Your task to perform on an android device: Open the web browser Image 0: 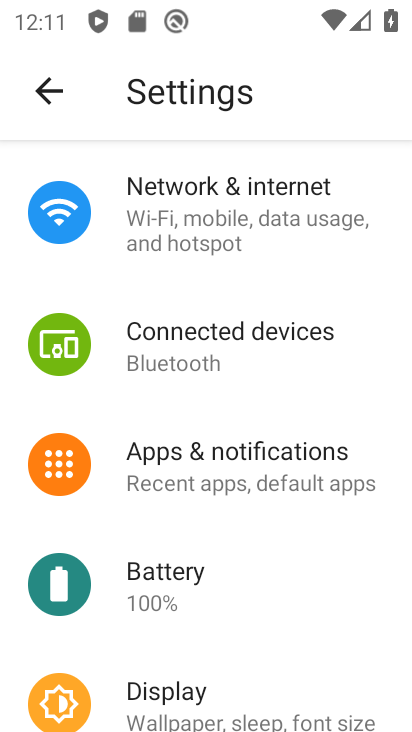
Step 0: press home button
Your task to perform on an android device: Open the web browser Image 1: 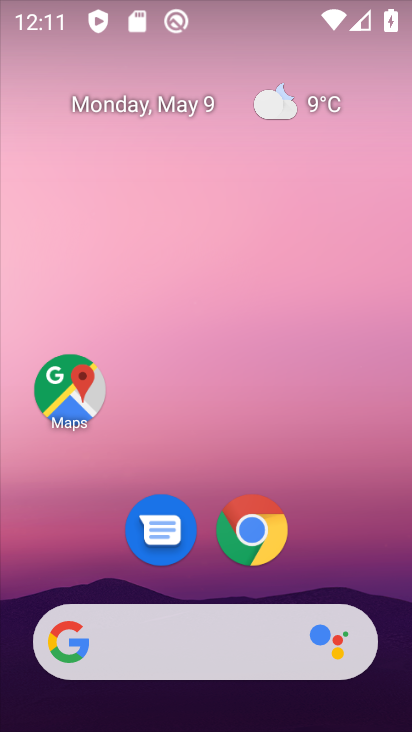
Step 1: click (345, 242)
Your task to perform on an android device: Open the web browser Image 2: 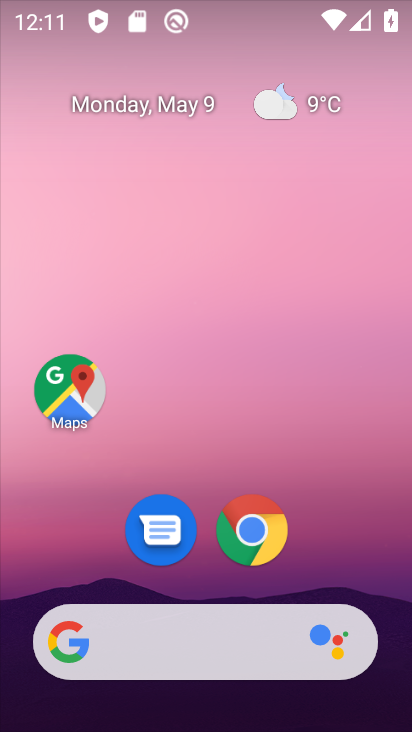
Step 2: drag from (314, 500) to (338, 263)
Your task to perform on an android device: Open the web browser Image 3: 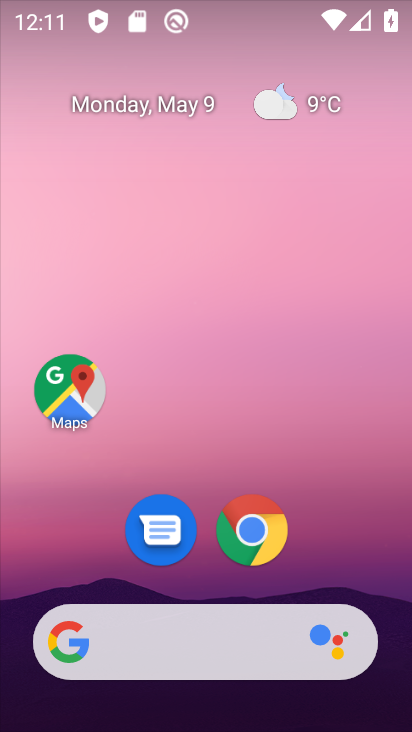
Step 3: drag from (317, 552) to (345, 141)
Your task to perform on an android device: Open the web browser Image 4: 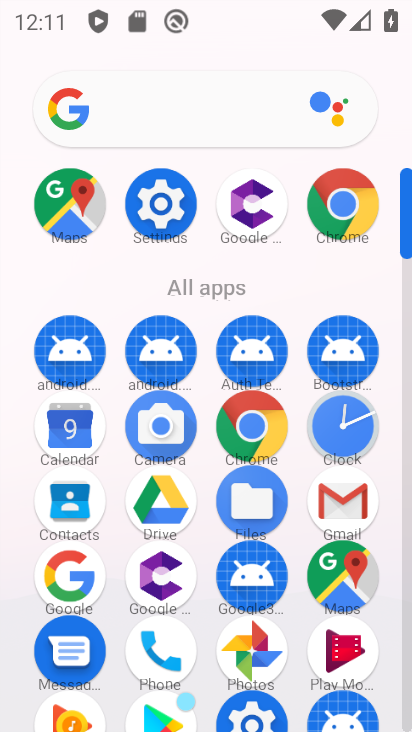
Step 4: click (262, 425)
Your task to perform on an android device: Open the web browser Image 5: 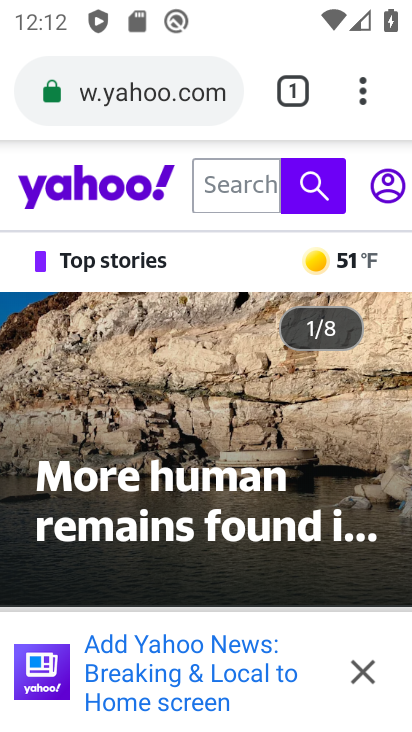
Step 5: task complete